Your task to perform on an android device: Is it going to rain today? Image 0: 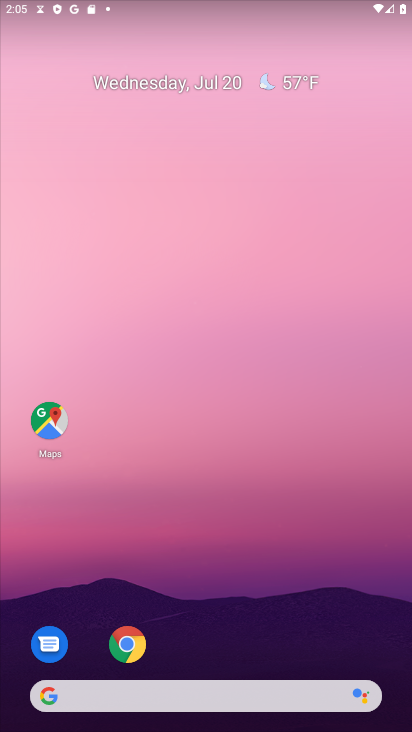
Step 0: press home button
Your task to perform on an android device: Is it going to rain today? Image 1: 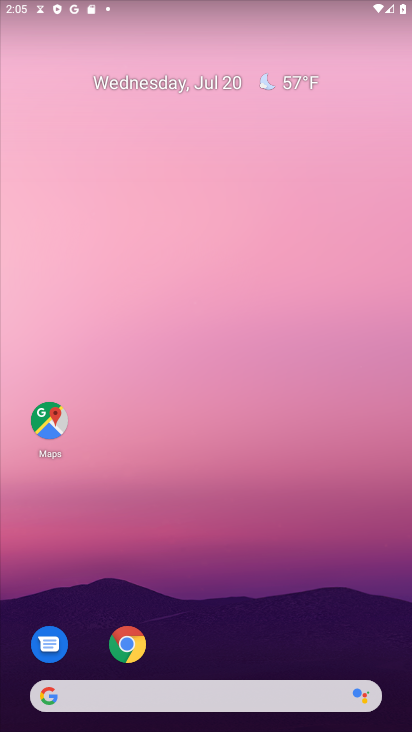
Step 1: click (41, 700)
Your task to perform on an android device: Is it going to rain today? Image 2: 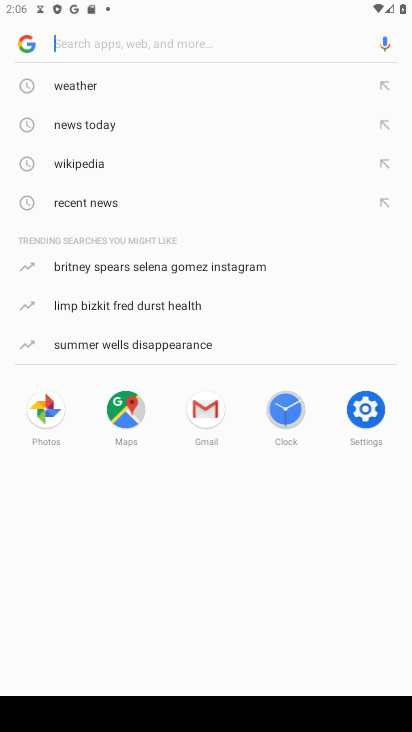
Step 2: type "rain today?"
Your task to perform on an android device: Is it going to rain today? Image 3: 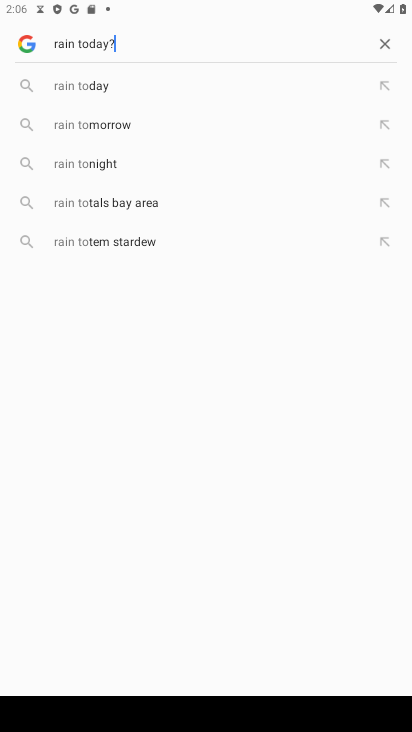
Step 3: press enter
Your task to perform on an android device: Is it going to rain today? Image 4: 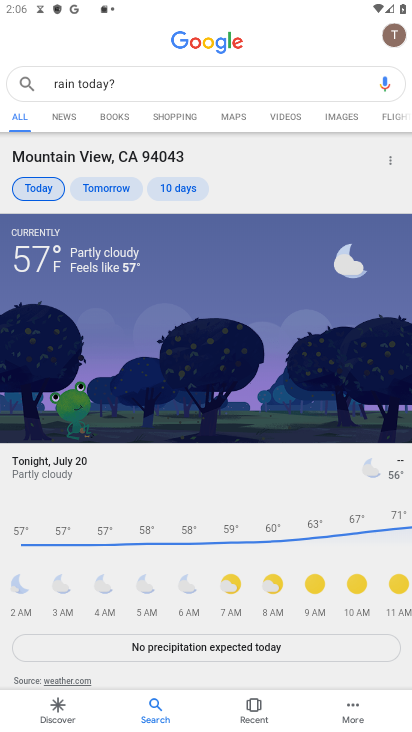
Step 4: task complete